Your task to perform on an android device: Open Google Maps and go to "Timeline" Image 0: 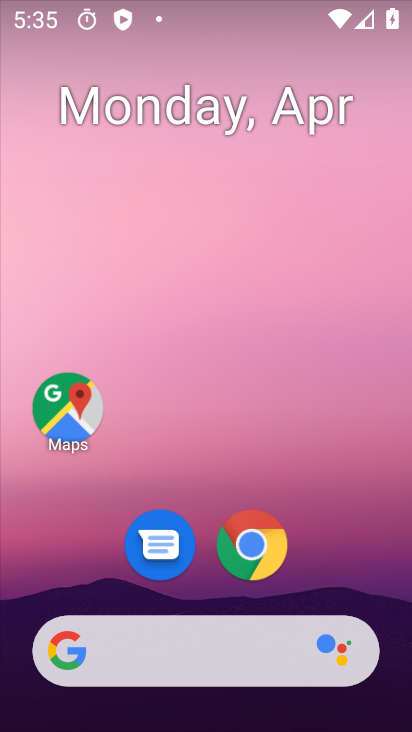
Step 0: drag from (306, 532) to (357, 74)
Your task to perform on an android device: Open Google Maps and go to "Timeline" Image 1: 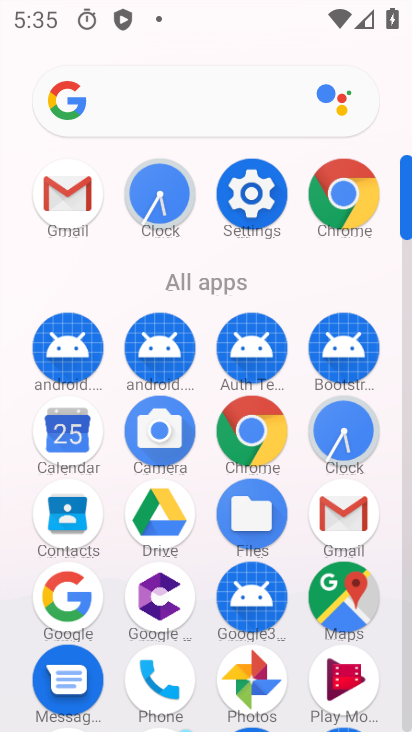
Step 1: click (344, 600)
Your task to perform on an android device: Open Google Maps and go to "Timeline" Image 2: 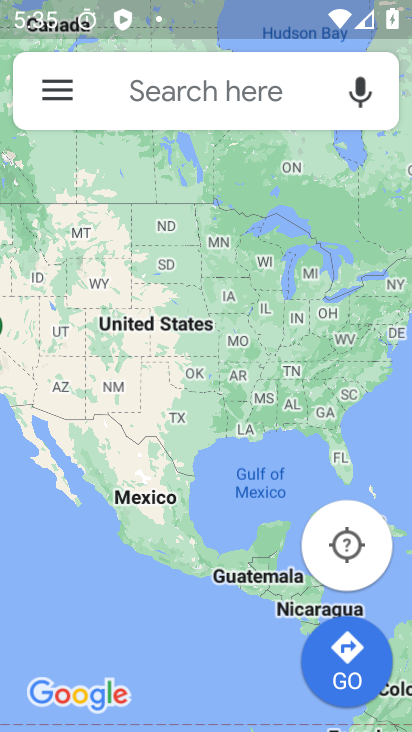
Step 2: click (56, 89)
Your task to perform on an android device: Open Google Maps and go to "Timeline" Image 3: 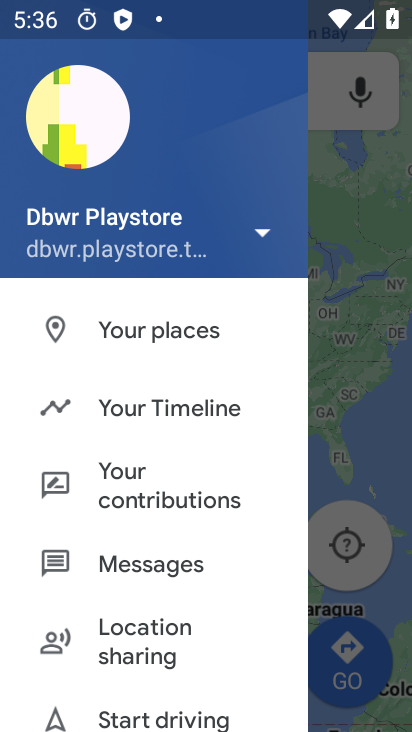
Step 3: click (183, 413)
Your task to perform on an android device: Open Google Maps and go to "Timeline" Image 4: 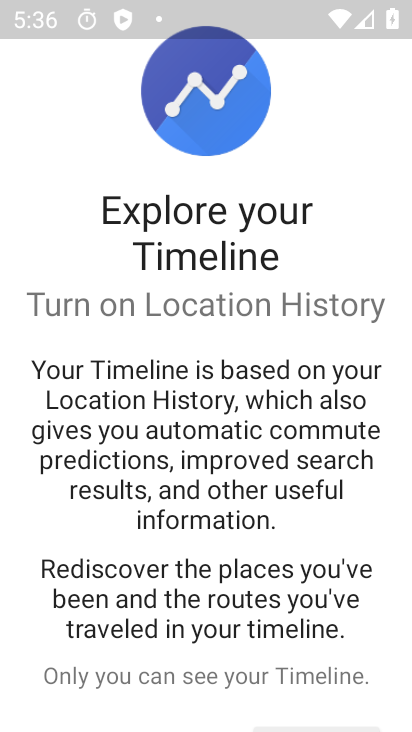
Step 4: drag from (163, 549) to (239, 274)
Your task to perform on an android device: Open Google Maps and go to "Timeline" Image 5: 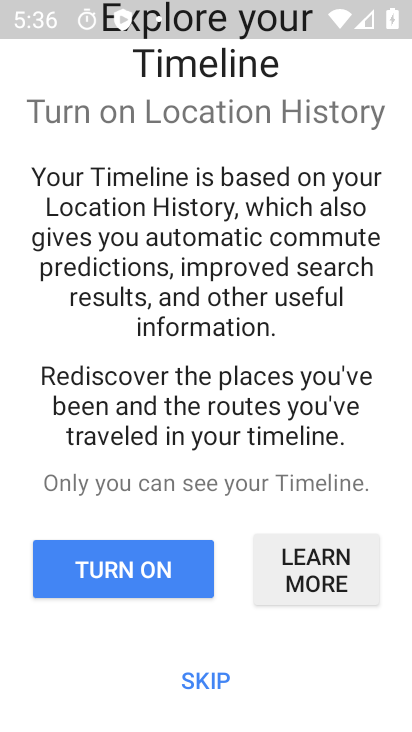
Step 5: click (150, 566)
Your task to perform on an android device: Open Google Maps and go to "Timeline" Image 6: 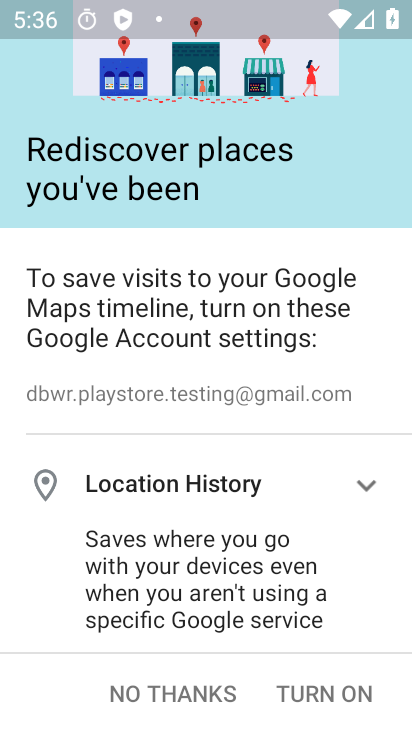
Step 6: drag from (303, 555) to (338, 273)
Your task to perform on an android device: Open Google Maps and go to "Timeline" Image 7: 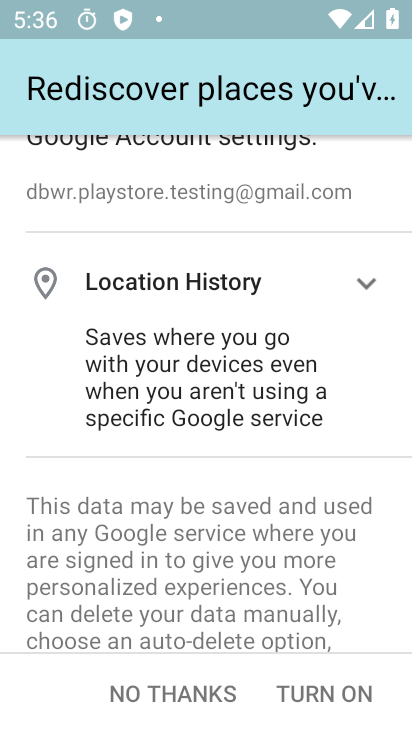
Step 7: click (194, 691)
Your task to perform on an android device: Open Google Maps and go to "Timeline" Image 8: 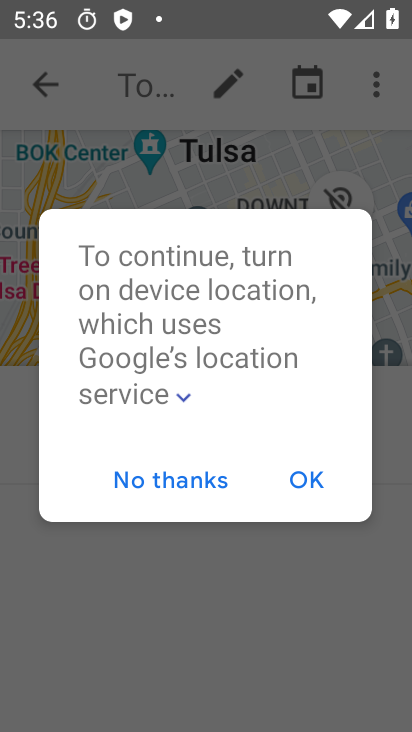
Step 8: click (308, 482)
Your task to perform on an android device: Open Google Maps and go to "Timeline" Image 9: 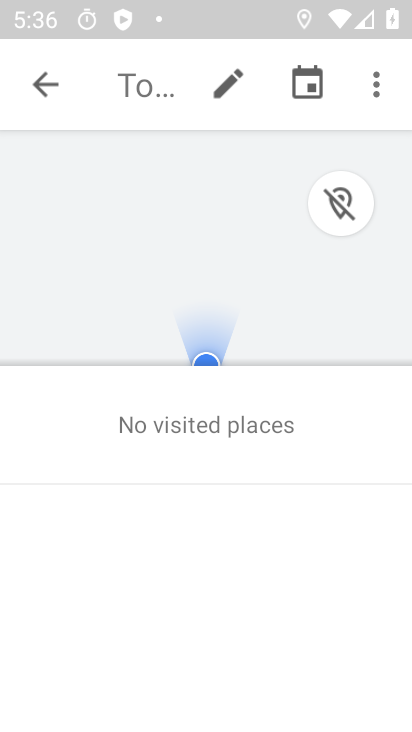
Step 9: task complete